Your task to perform on an android device: Look up the book "The Girl on the Train". Image 0: 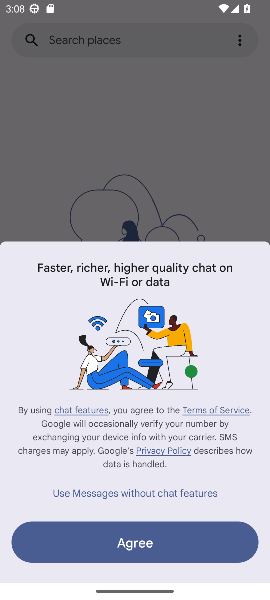
Step 0: press home button
Your task to perform on an android device: Look up the book "The Girl on the Train". Image 1: 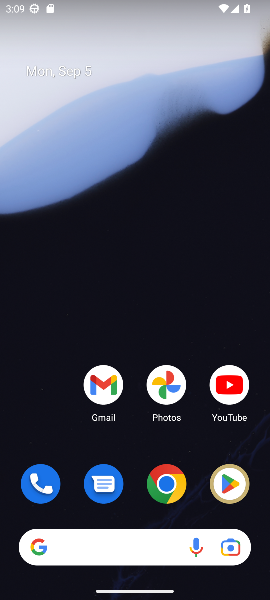
Step 1: click (166, 482)
Your task to perform on an android device: Look up the book "The Girl on the Train". Image 2: 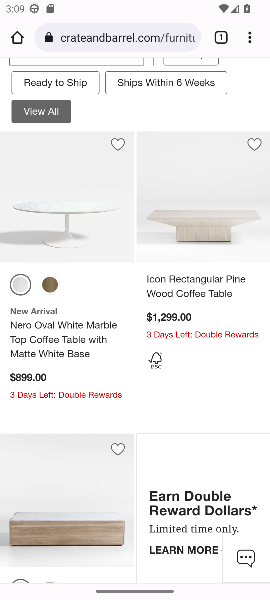
Step 2: click (143, 38)
Your task to perform on an android device: Look up the book "The Girl on the Train". Image 3: 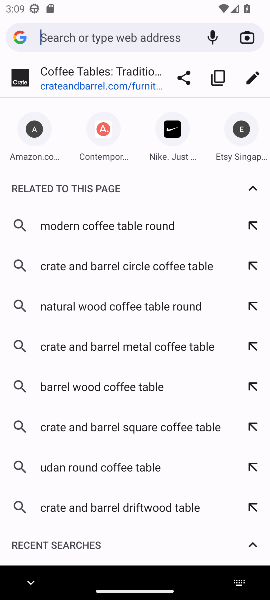
Step 3: type "The Girl on the Train book"
Your task to perform on an android device: Look up the book "The Girl on the Train". Image 4: 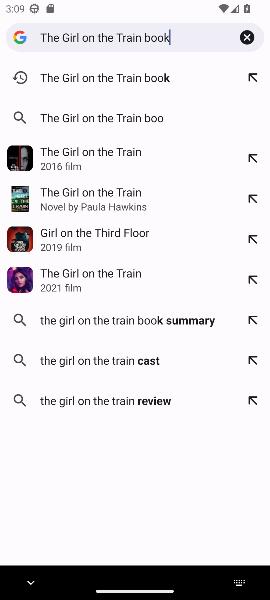
Step 4: press enter
Your task to perform on an android device: Look up the book "The Girl on the Train". Image 5: 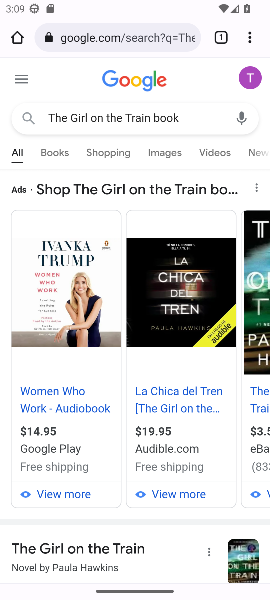
Step 5: click (211, 241)
Your task to perform on an android device: Look up the book "The Girl on the Train". Image 6: 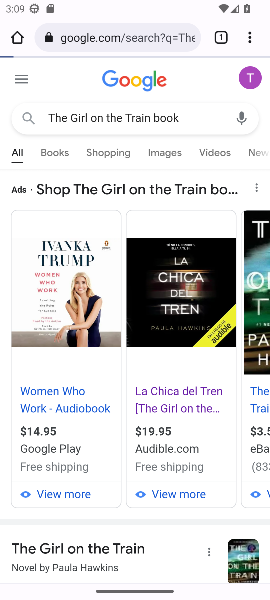
Step 6: task complete